Your task to perform on an android device: change notifications settings Image 0: 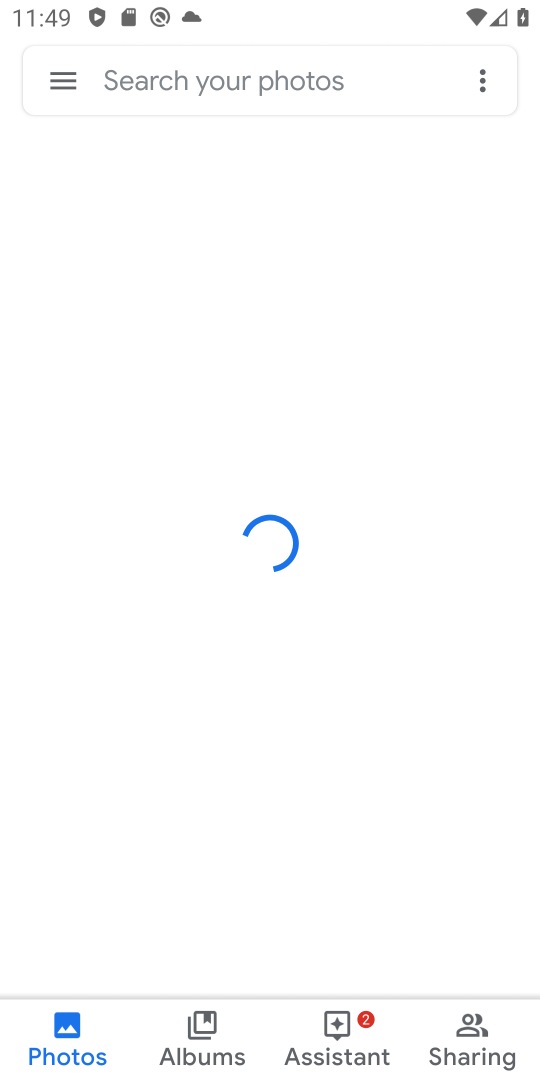
Step 0: press home button
Your task to perform on an android device: change notifications settings Image 1: 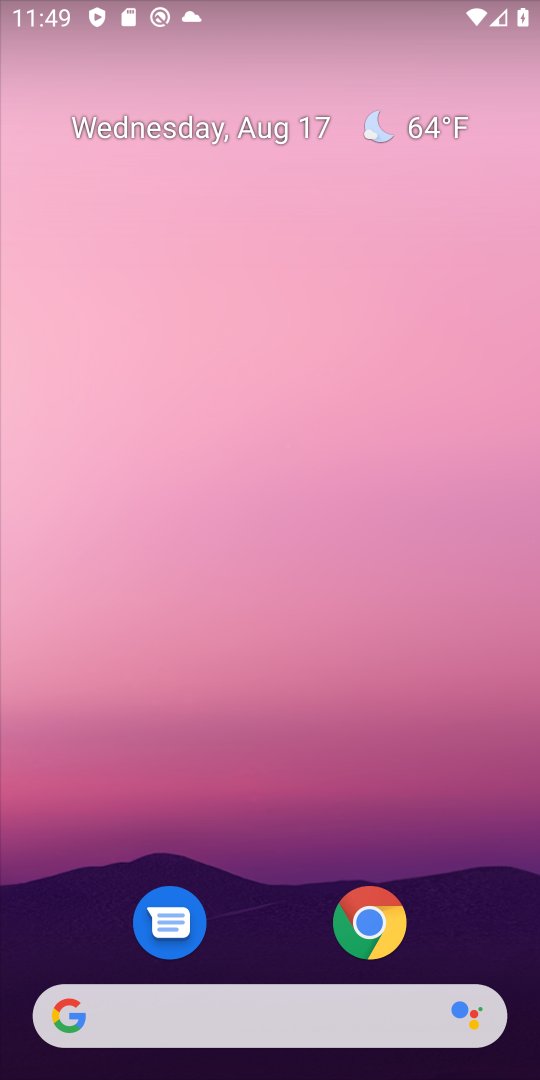
Step 1: drag from (276, 835) to (290, 160)
Your task to perform on an android device: change notifications settings Image 2: 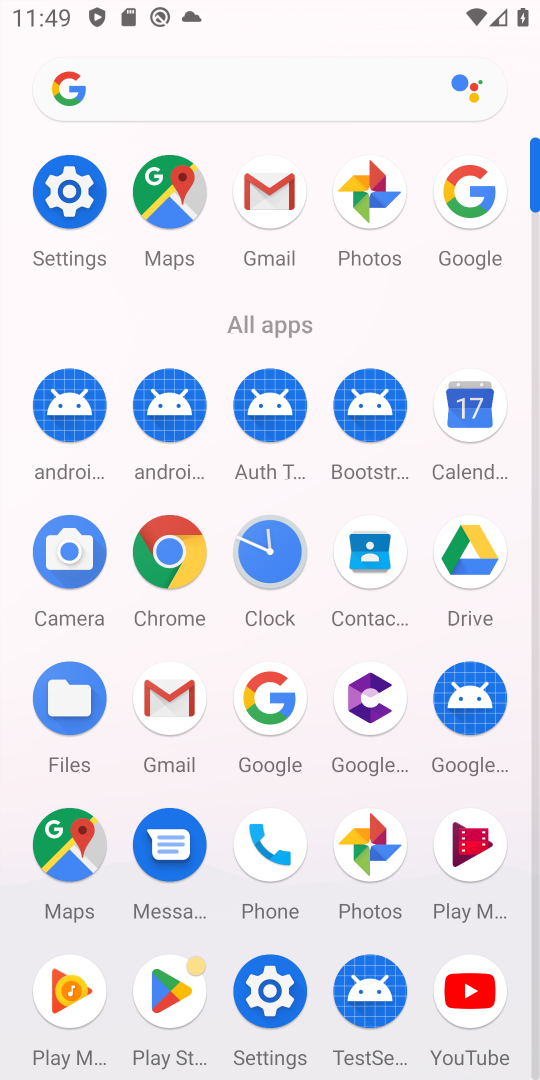
Step 2: click (74, 188)
Your task to perform on an android device: change notifications settings Image 3: 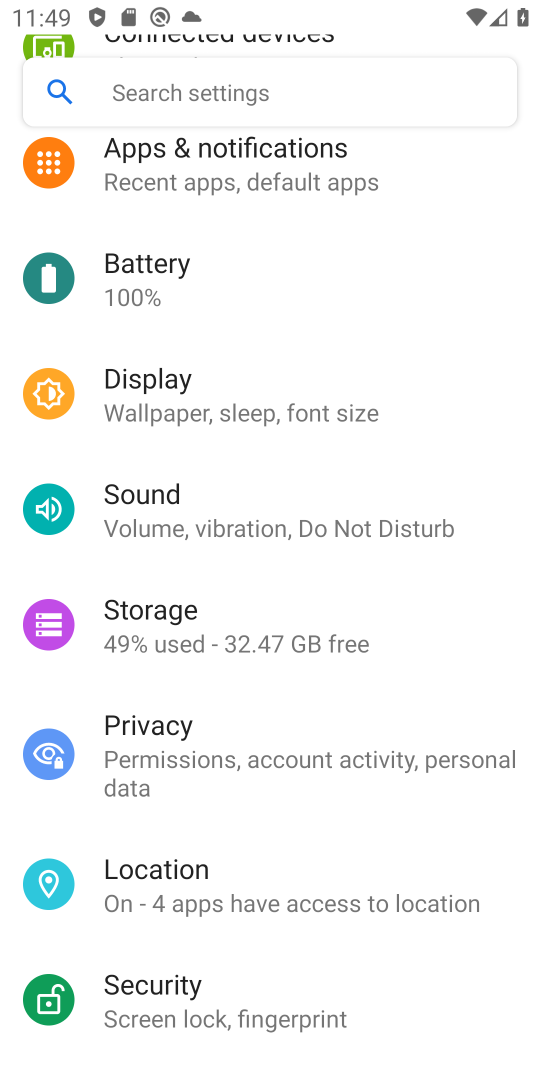
Step 3: click (185, 153)
Your task to perform on an android device: change notifications settings Image 4: 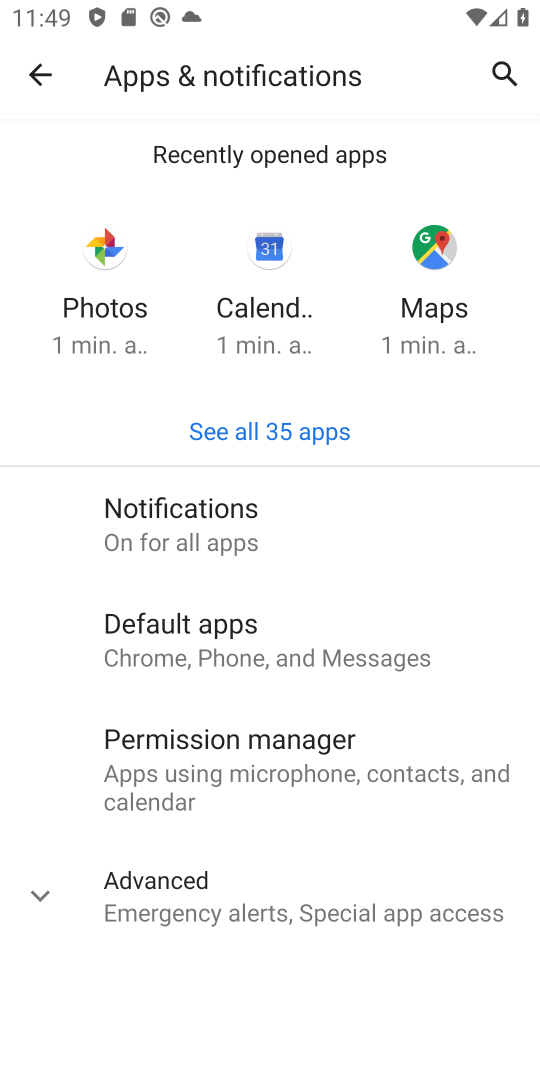
Step 4: click (191, 504)
Your task to perform on an android device: change notifications settings Image 5: 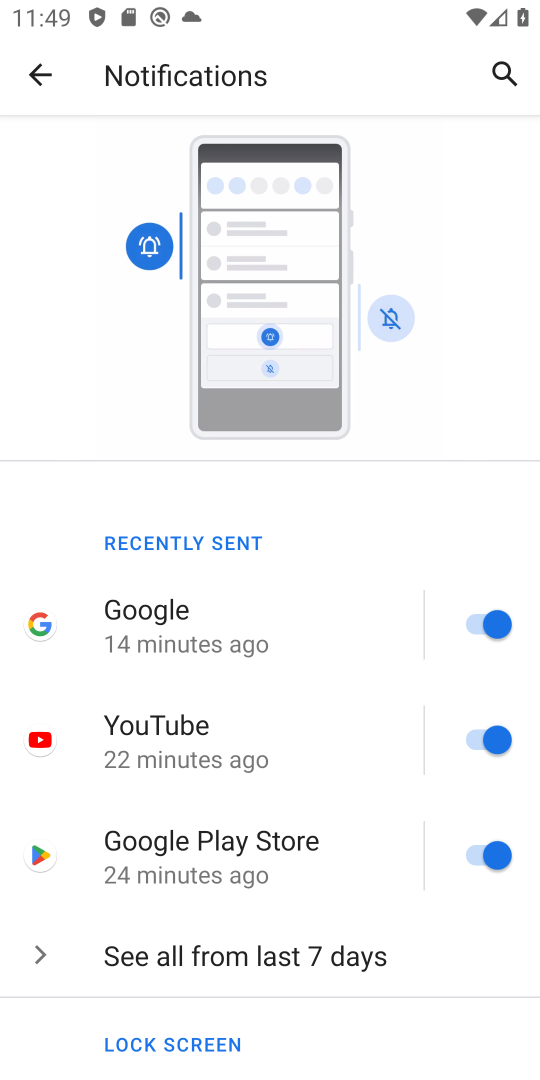
Step 5: click (241, 949)
Your task to perform on an android device: change notifications settings Image 6: 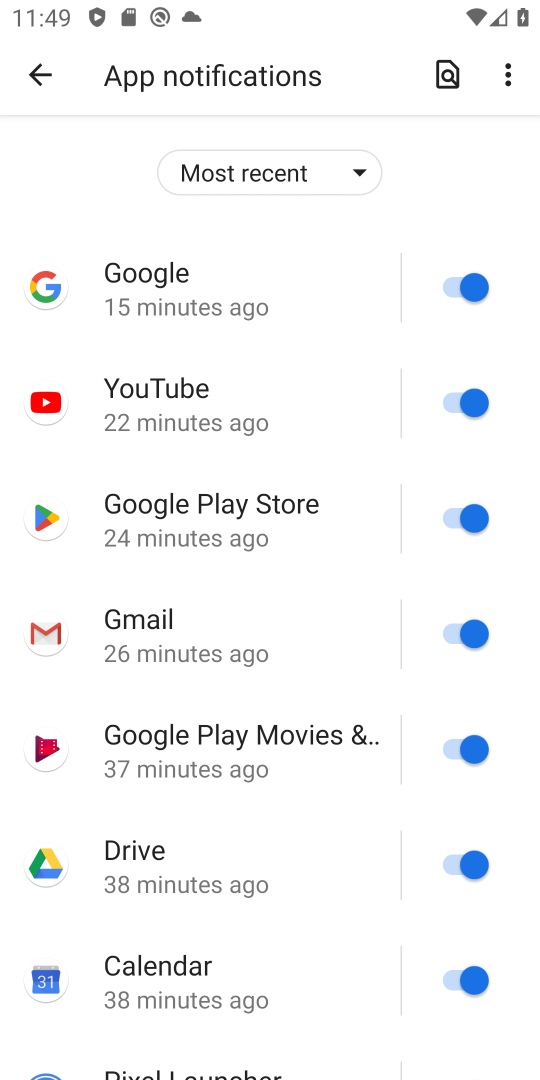
Step 6: click (353, 166)
Your task to perform on an android device: change notifications settings Image 7: 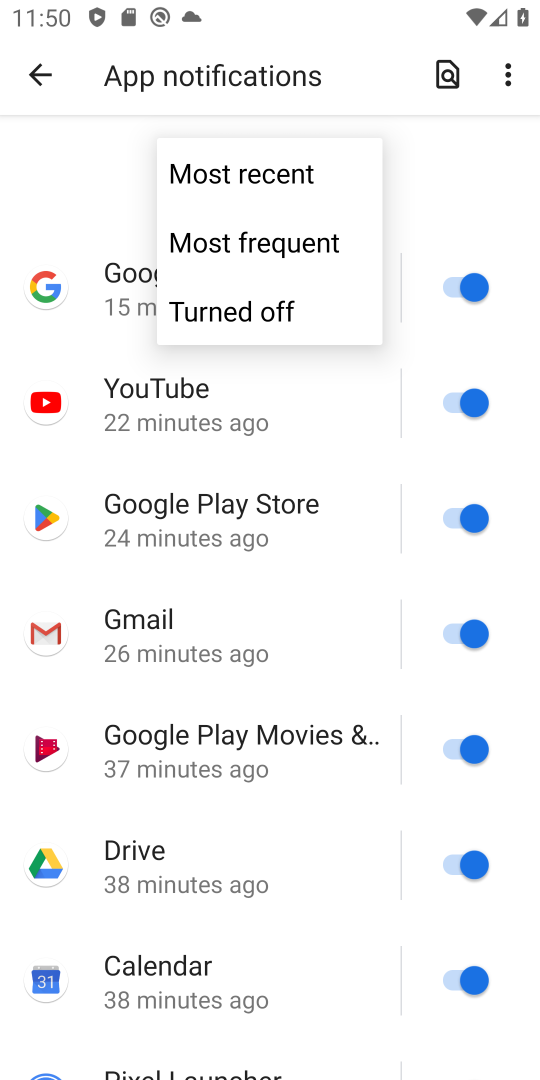
Step 7: click (235, 312)
Your task to perform on an android device: change notifications settings Image 8: 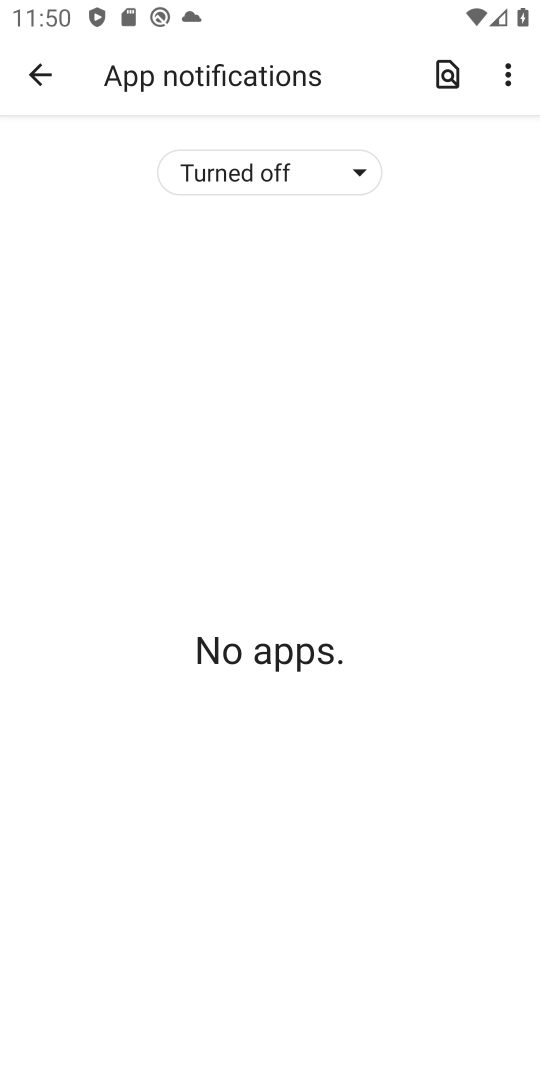
Step 8: task complete